Your task to perform on an android device: Add dell xps to the cart on newegg, then select checkout. Image 0: 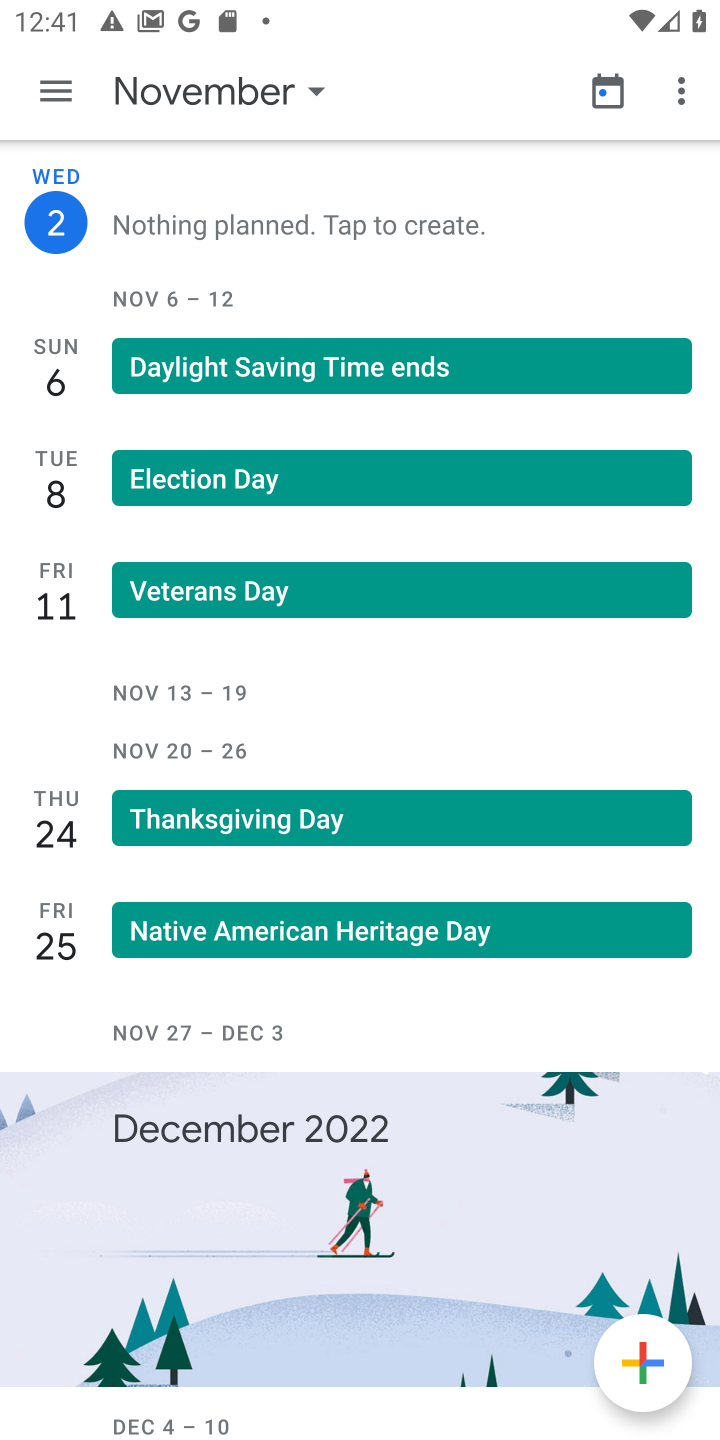
Step 0: press home button
Your task to perform on an android device: Add dell xps to the cart on newegg, then select checkout. Image 1: 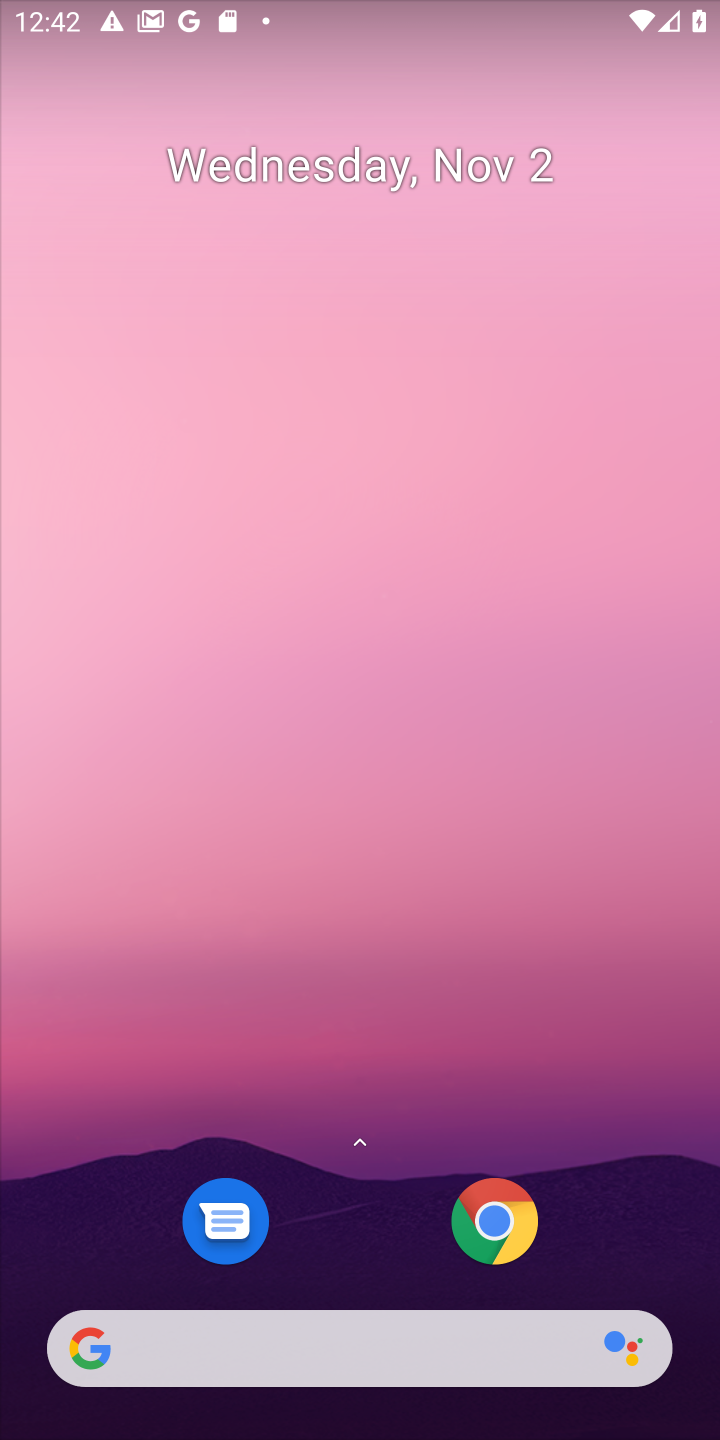
Step 1: click (295, 1370)
Your task to perform on an android device: Add dell xps to the cart on newegg, then select checkout. Image 2: 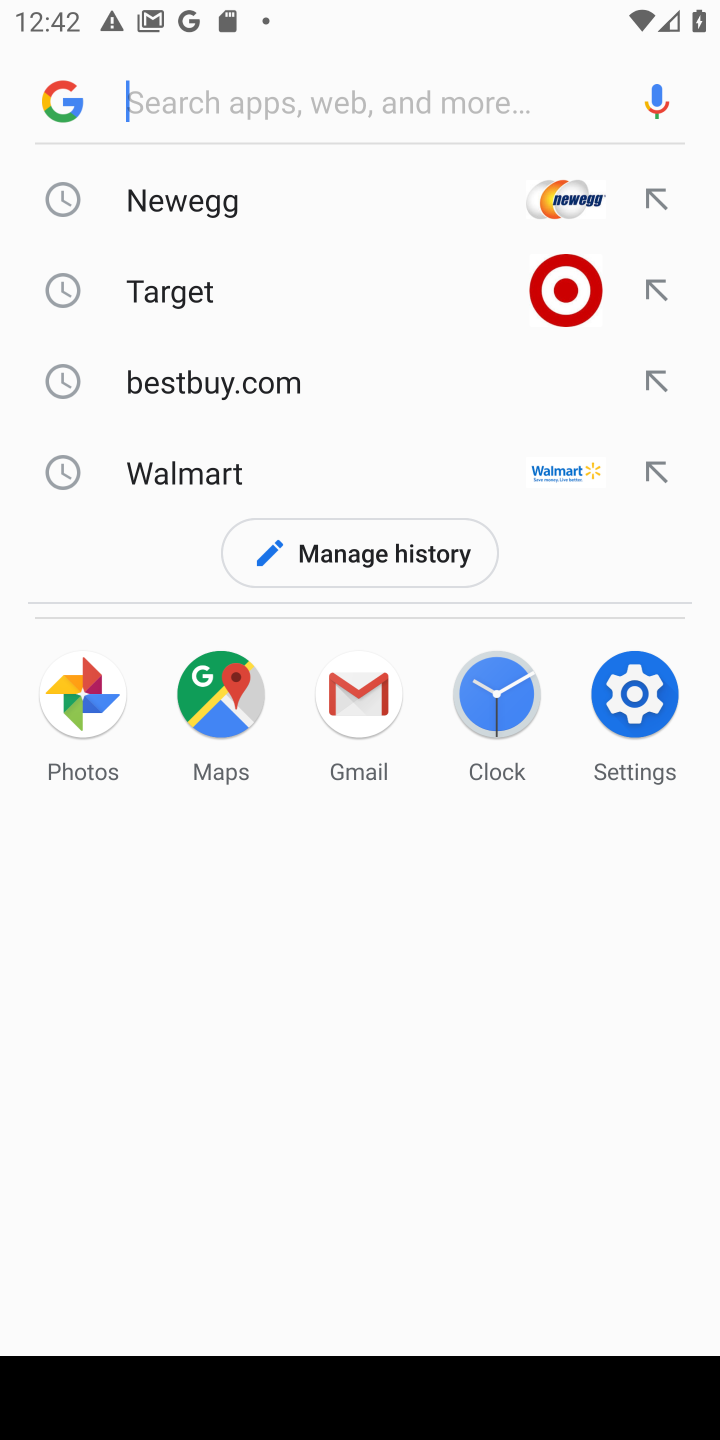
Step 2: click (239, 203)
Your task to perform on an android device: Add dell xps to the cart on newegg, then select checkout. Image 3: 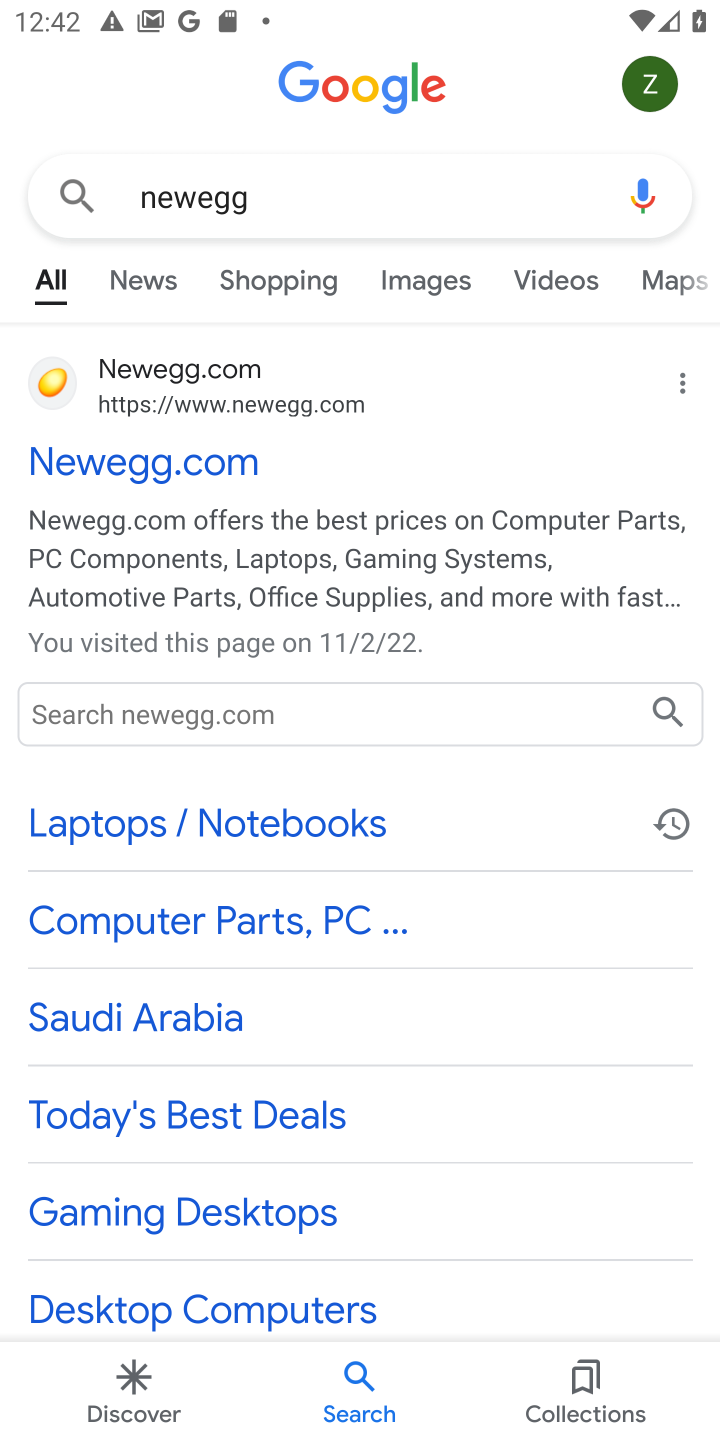
Step 3: click (228, 490)
Your task to perform on an android device: Add dell xps to the cart on newegg, then select checkout. Image 4: 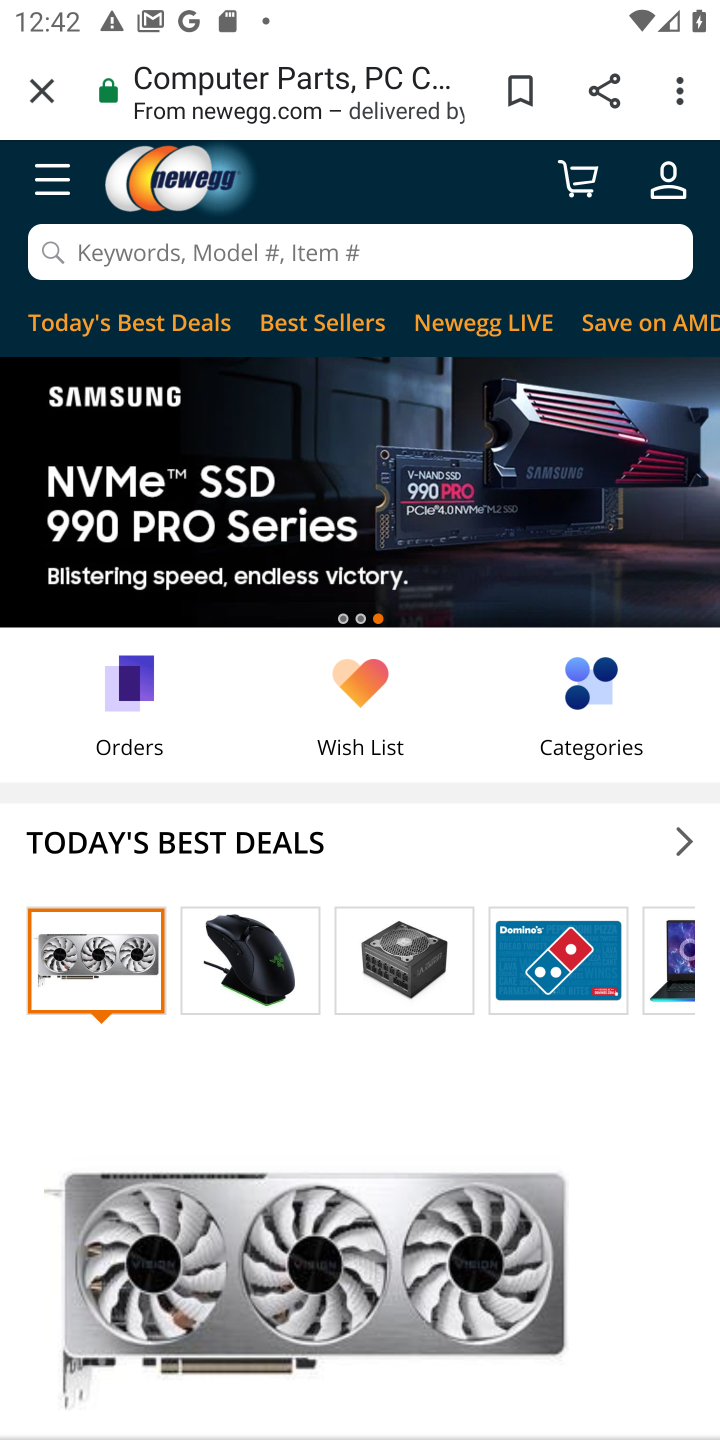
Step 4: click (367, 258)
Your task to perform on an android device: Add dell xps to the cart on newegg, then select checkout. Image 5: 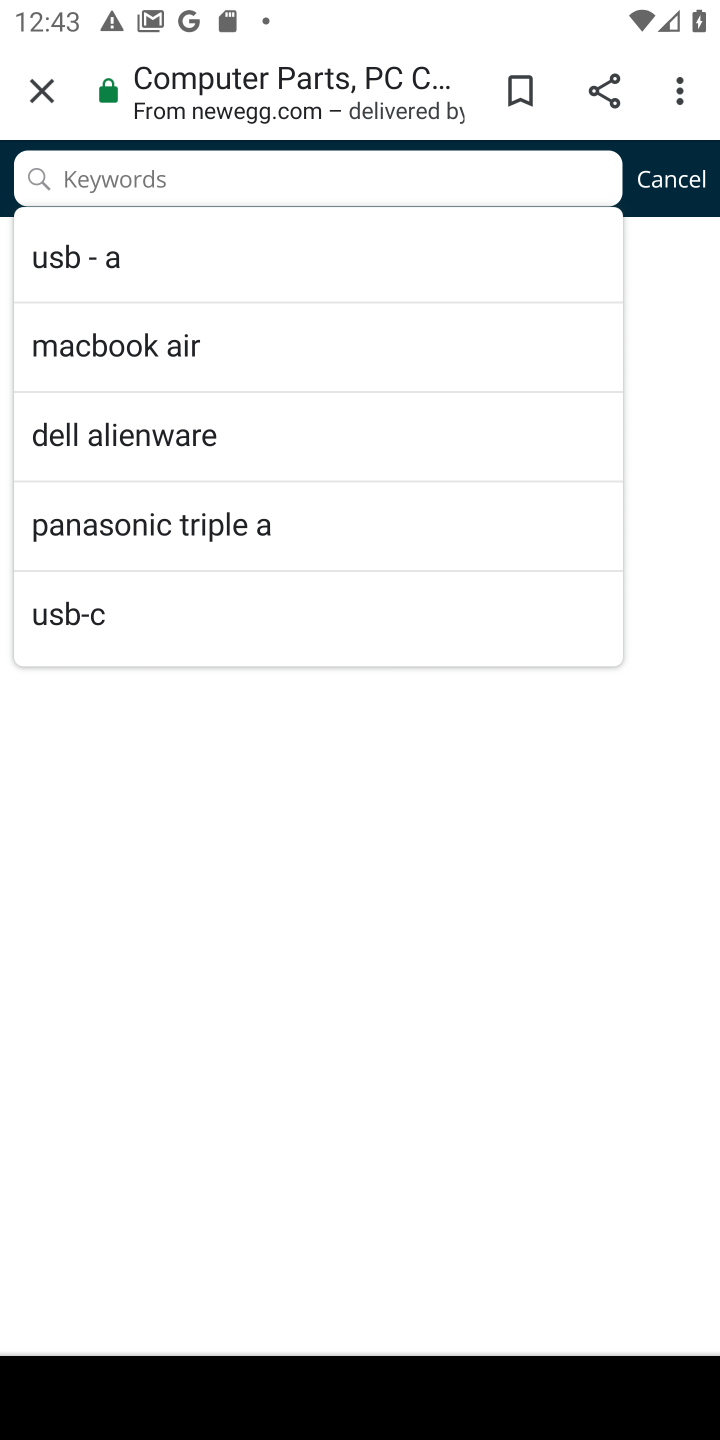
Step 5: click (286, 168)
Your task to perform on an android device: Add dell xps to the cart on newegg, then select checkout. Image 6: 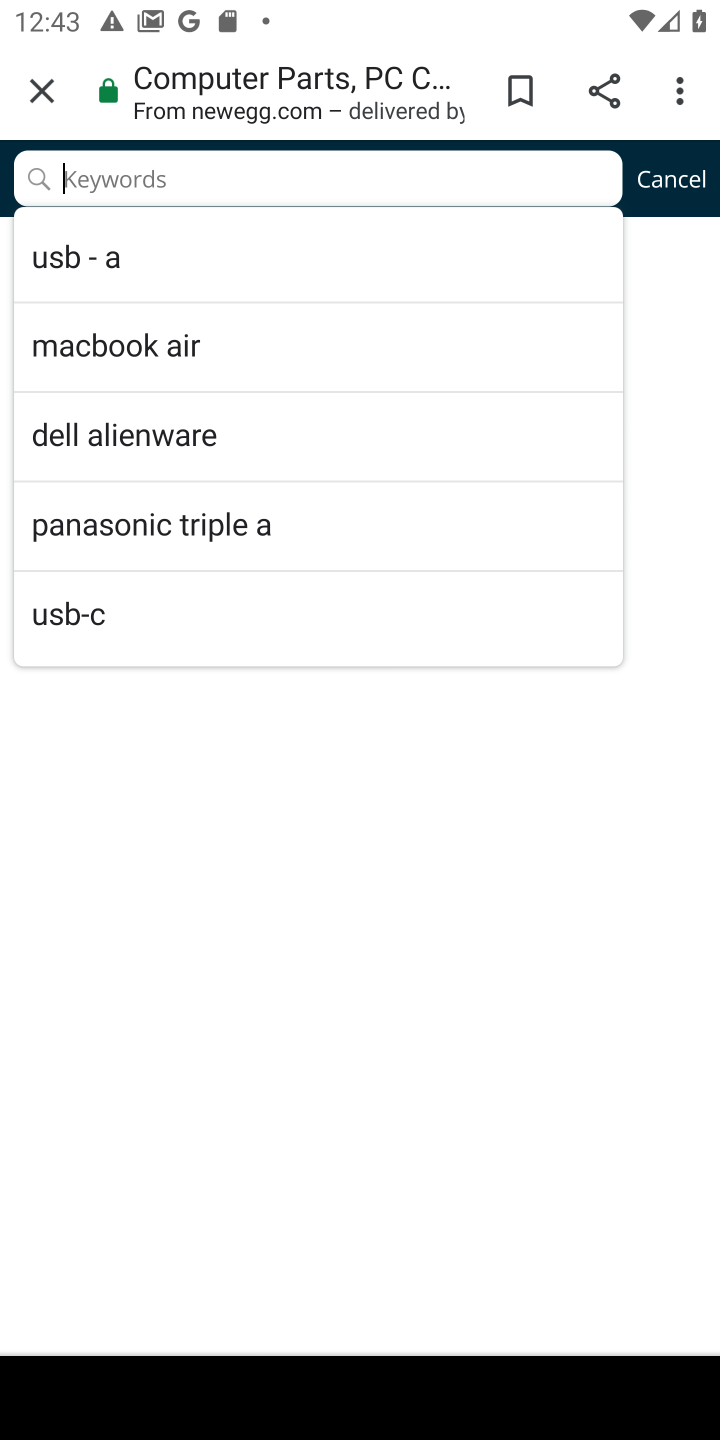
Step 6: type "dell xps"
Your task to perform on an android device: Add dell xps to the cart on newegg, then select checkout. Image 7: 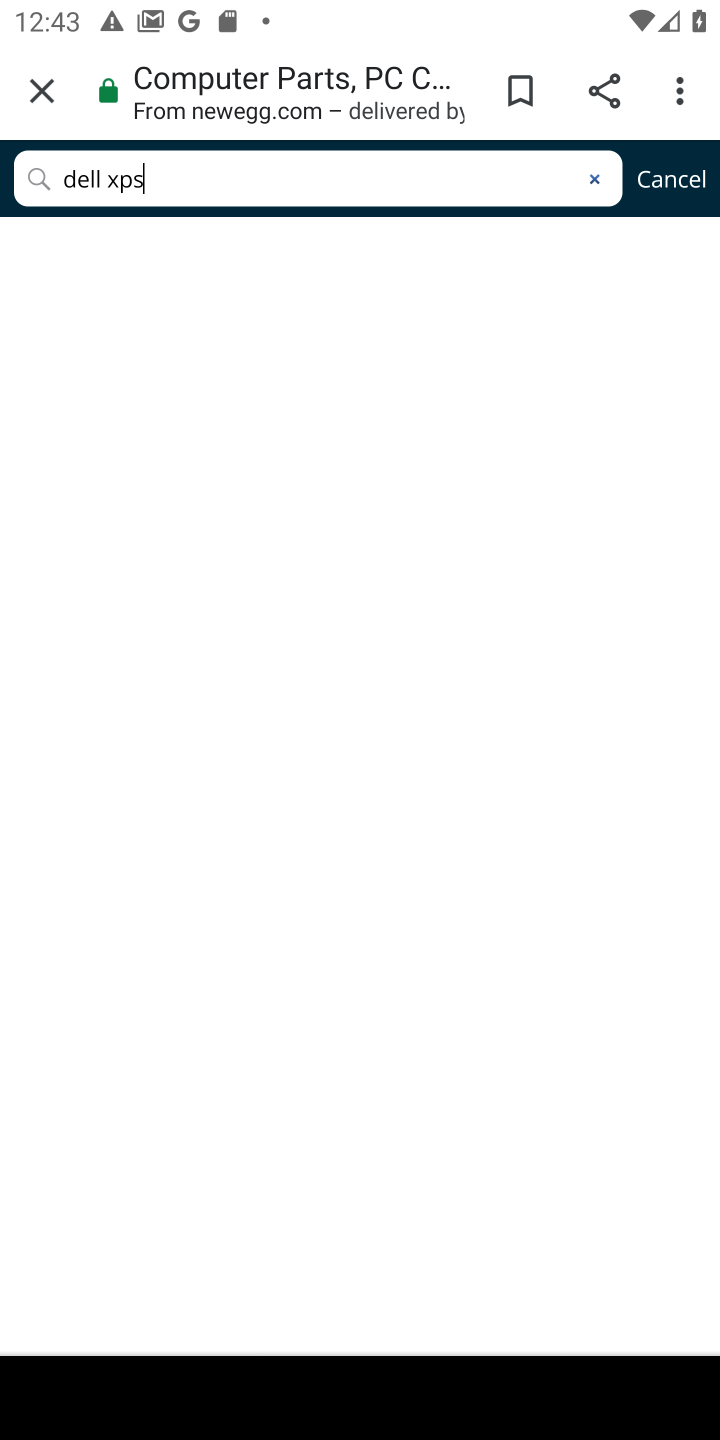
Step 7: task complete